Your task to perform on an android device: Open the Play Movies app and select the watchlist tab. Image 0: 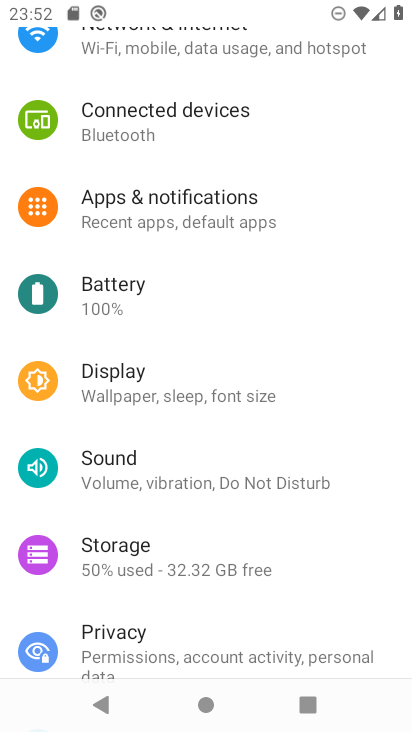
Step 0: press home button
Your task to perform on an android device: Open the Play Movies app and select the watchlist tab. Image 1: 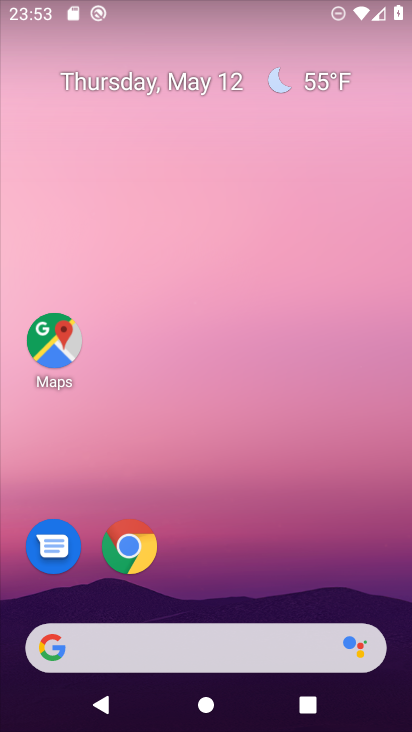
Step 1: drag from (215, 603) to (270, 144)
Your task to perform on an android device: Open the Play Movies app and select the watchlist tab. Image 2: 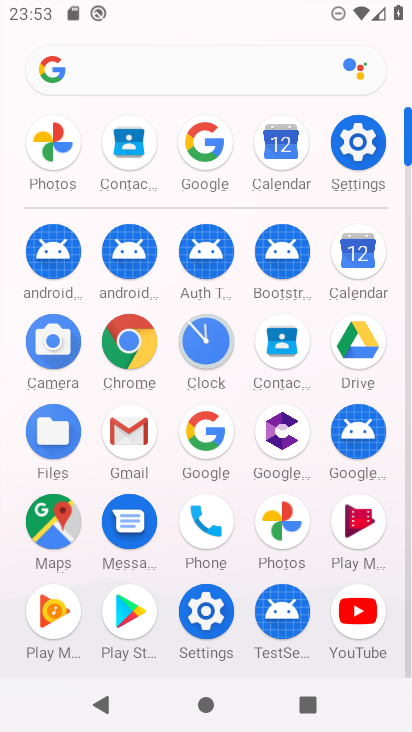
Step 2: click (362, 527)
Your task to perform on an android device: Open the Play Movies app and select the watchlist tab. Image 3: 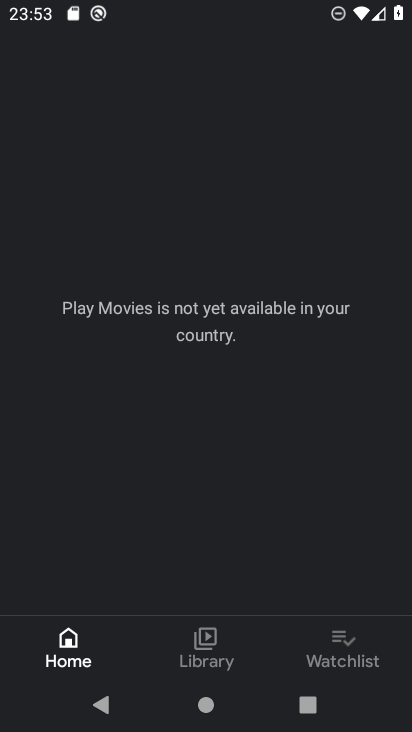
Step 3: click (317, 659)
Your task to perform on an android device: Open the Play Movies app and select the watchlist tab. Image 4: 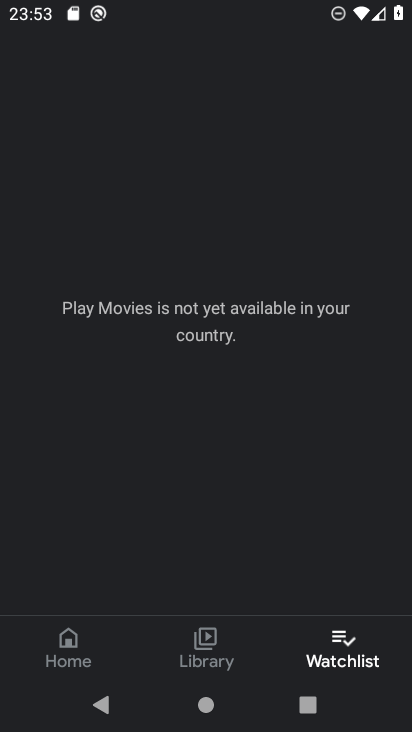
Step 4: task complete